Your task to perform on an android device: What's the weather going to be tomorrow? Image 0: 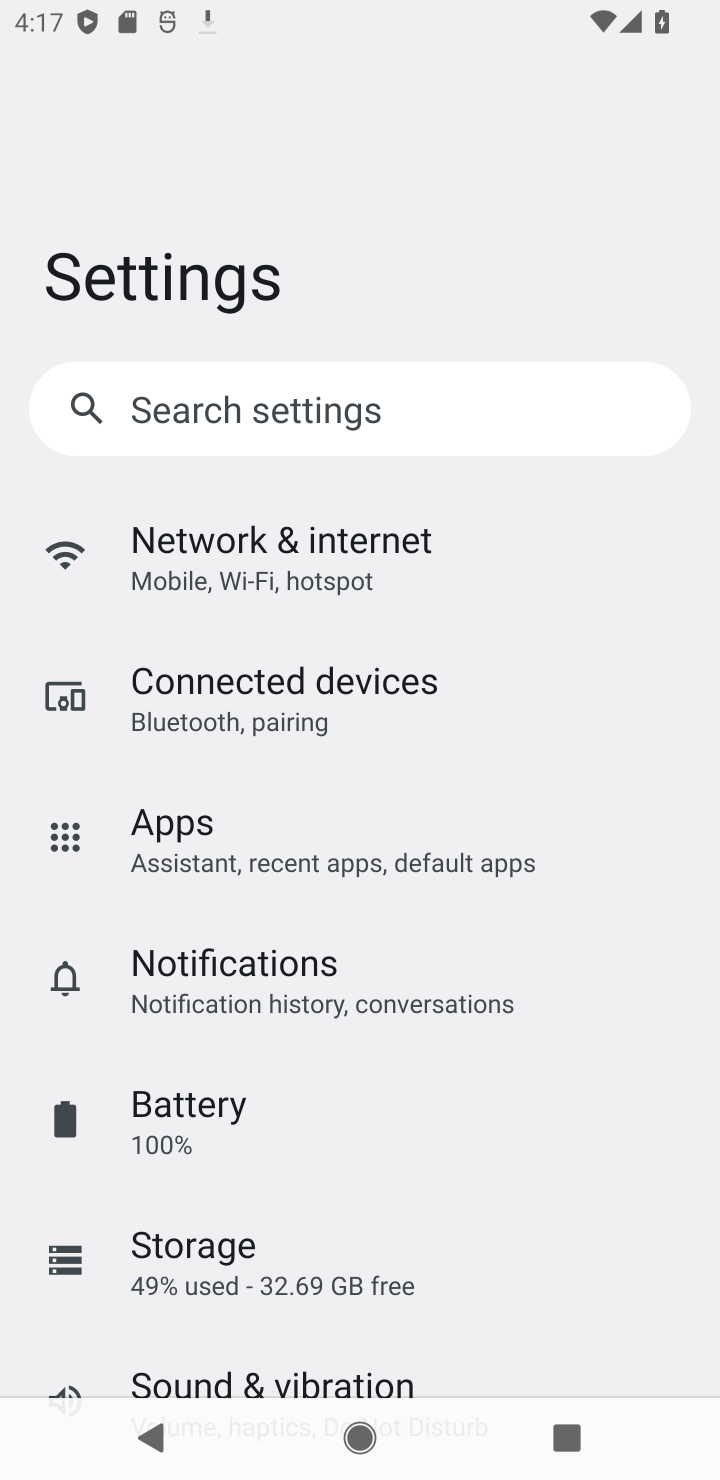
Step 0: press home button
Your task to perform on an android device: What's the weather going to be tomorrow? Image 1: 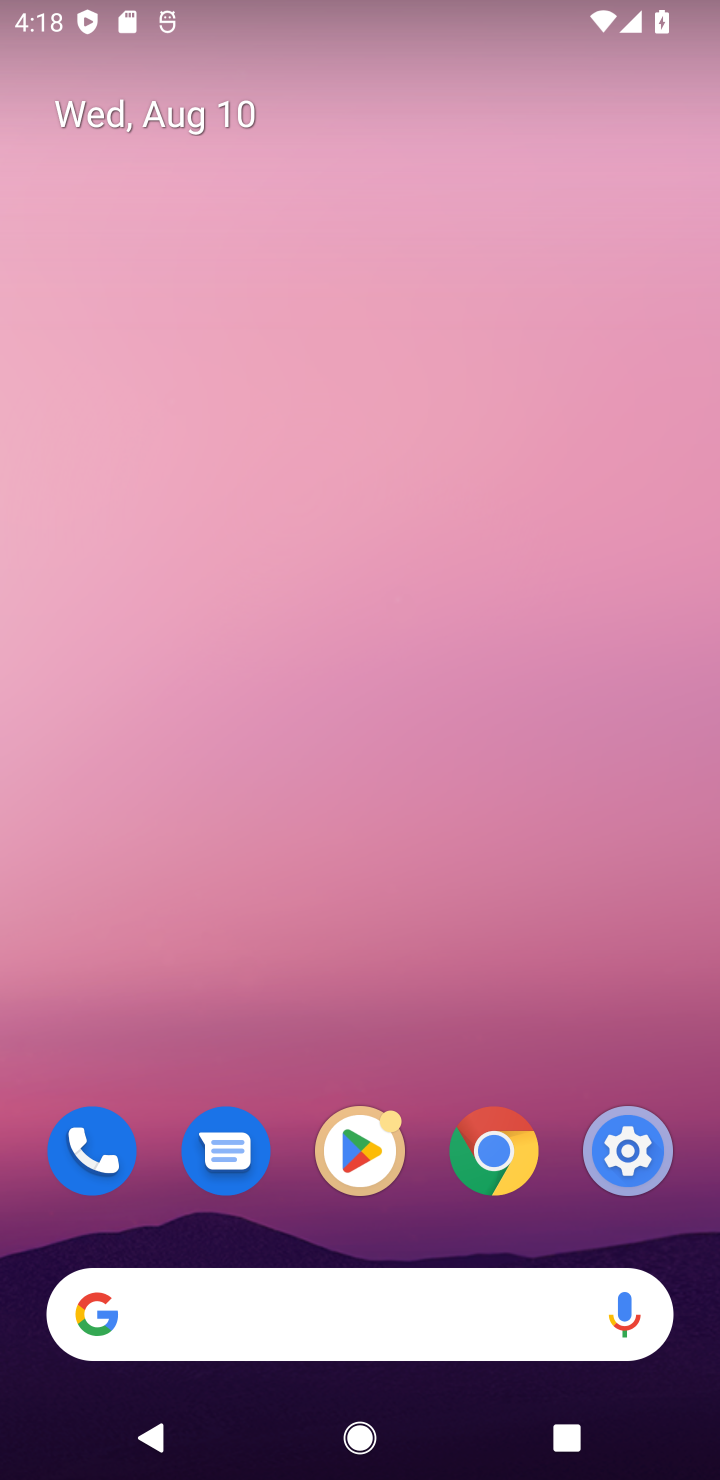
Step 1: click (463, 1323)
Your task to perform on an android device: What's the weather going to be tomorrow? Image 2: 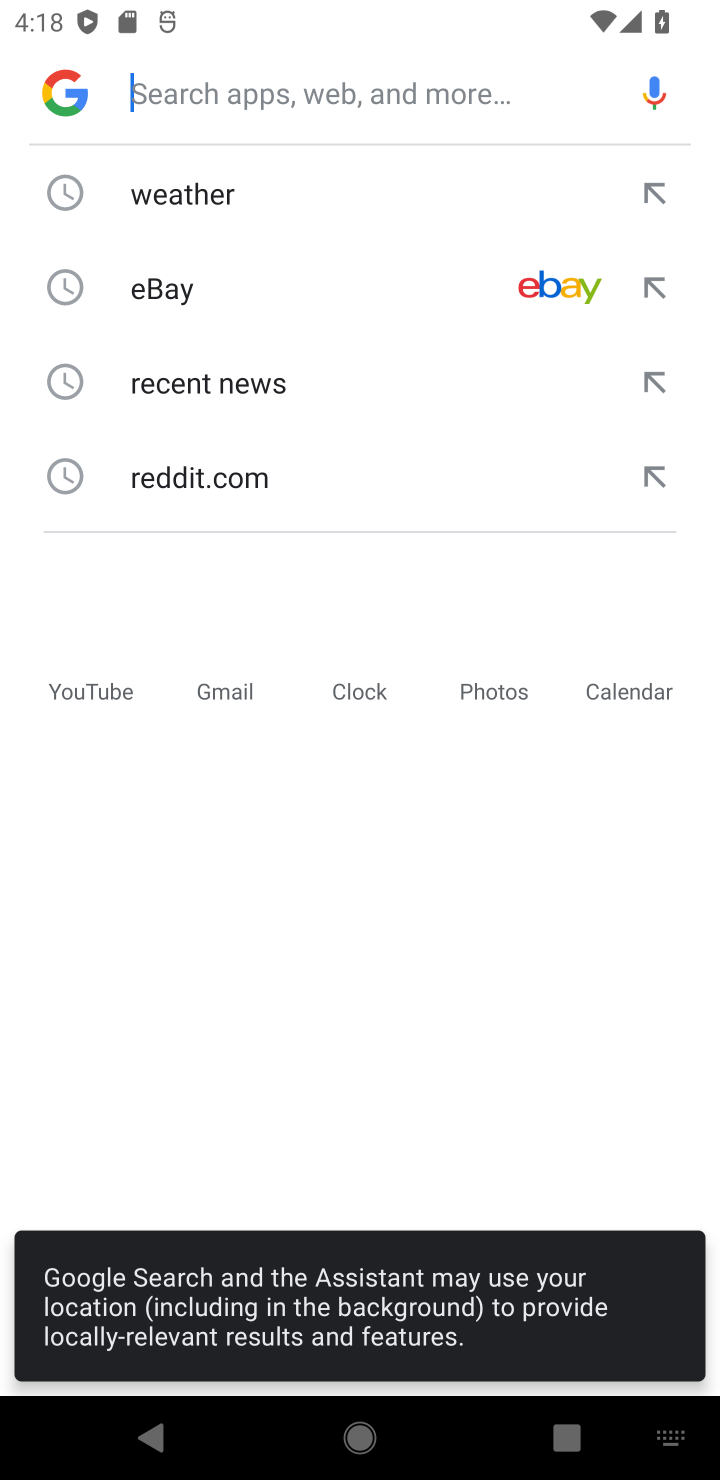
Step 2: type "What's the weather going to be tomorrow?"
Your task to perform on an android device: What's the weather going to be tomorrow? Image 3: 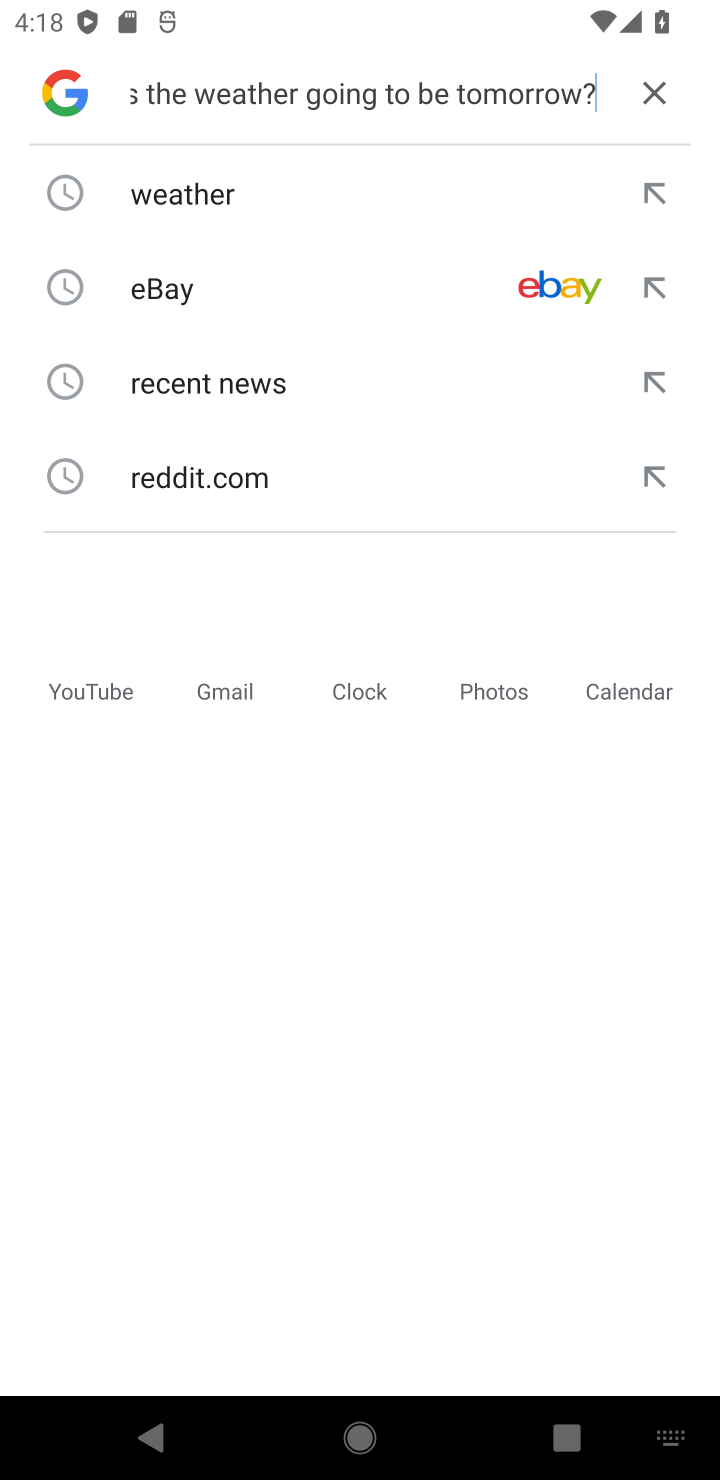
Step 3: press enter
Your task to perform on an android device: What's the weather going to be tomorrow? Image 4: 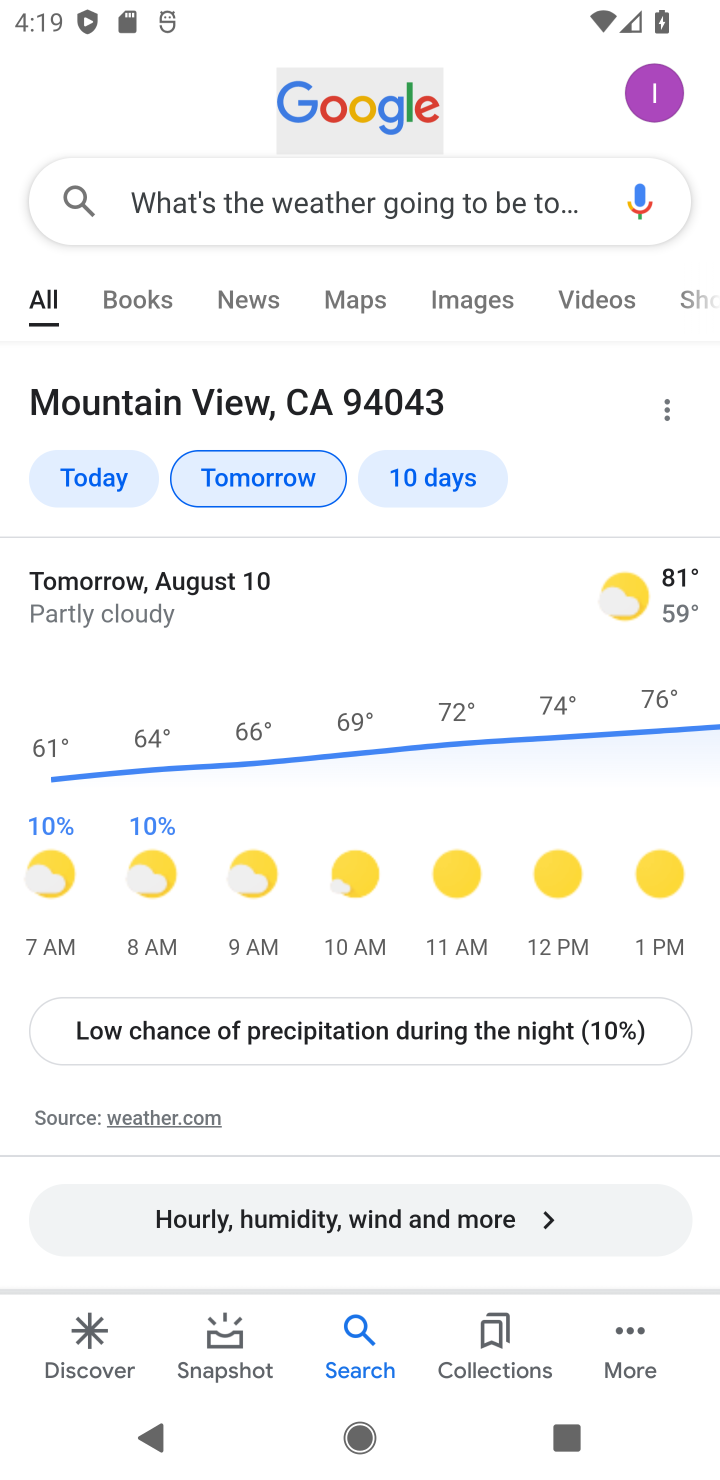
Step 4: task complete